Your task to perform on an android device: change keyboard looks Image 0: 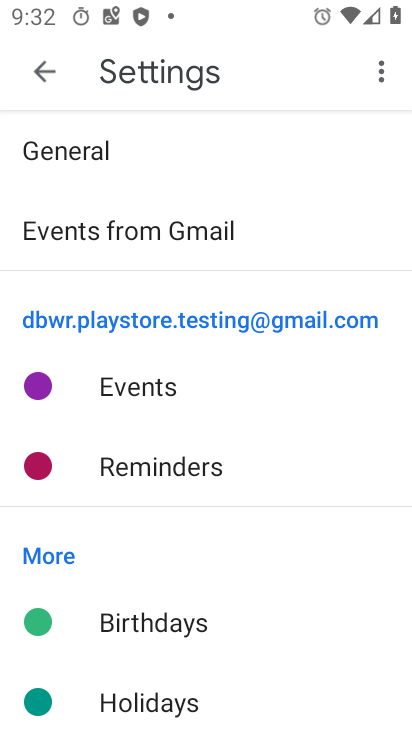
Step 0: press back button
Your task to perform on an android device: change keyboard looks Image 1: 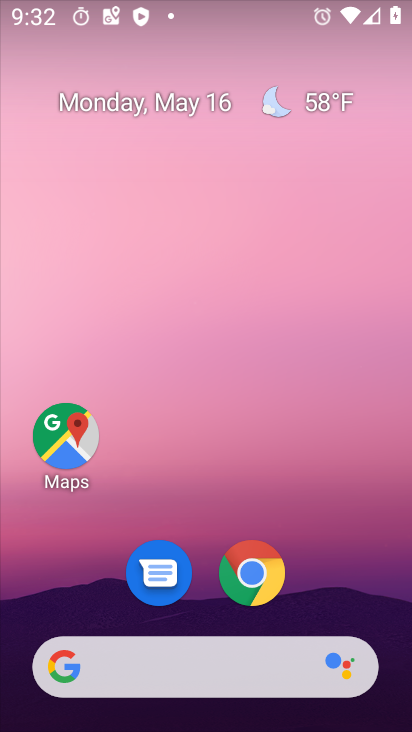
Step 1: drag from (328, 678) to (169, 126)
Your task to perform on an android device: change keyboard looks Image 2: 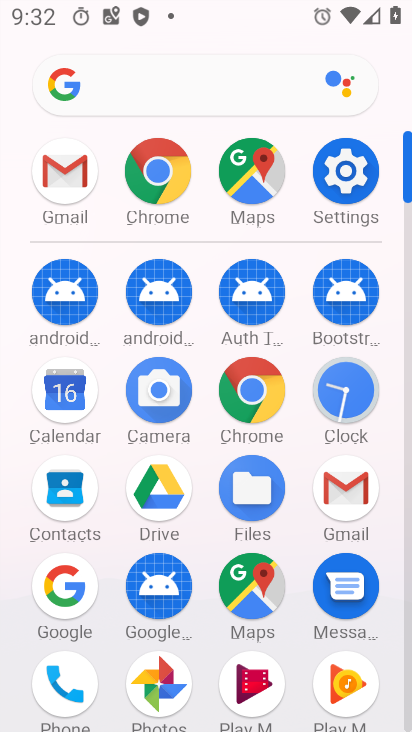
Step 2: click (346, 177)
Your task to perform on an android device: change keyboard looks Image 3: 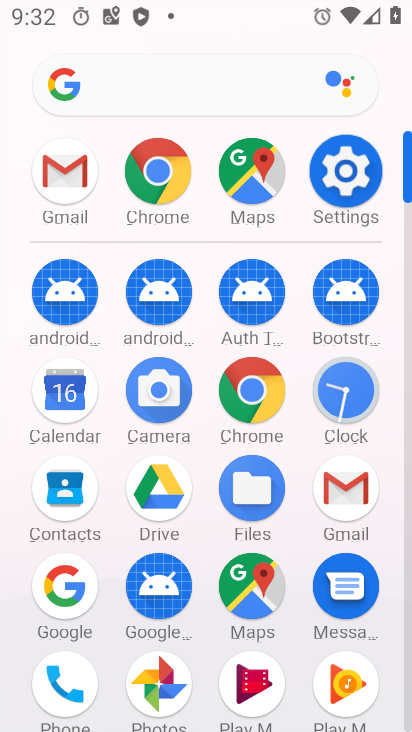
Step 3: click (347, 176)
Your task to perform on an android device: change keyboard looks Image 4: 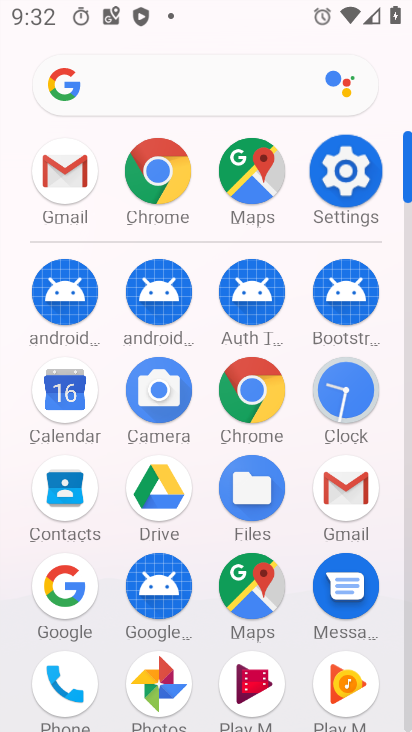
Step 4: click (348, 175)
Your task to perform on an android device: change keyboard looks Image 5: 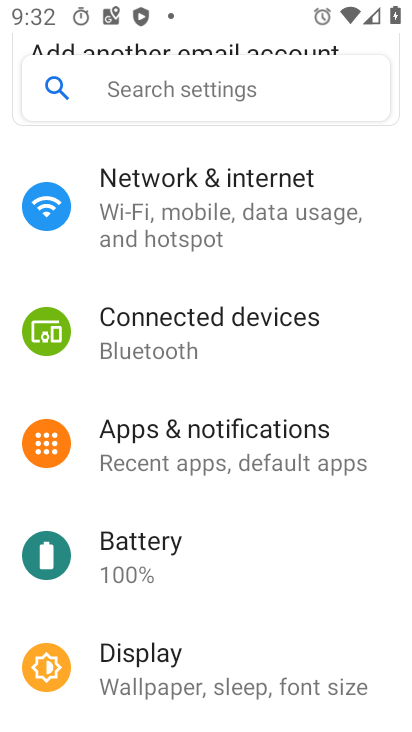
Step 5: drag from (221, 591) to (224, 56)
Your task to perform on an android device: change keyboard looks Image 6: 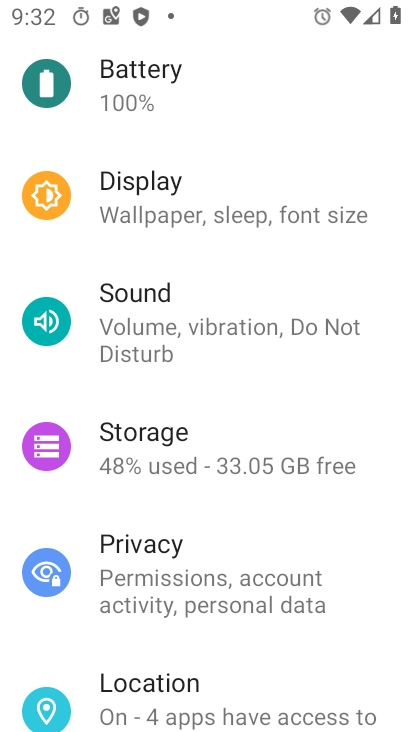
Step 6: drag from (233, 633) to (214, 59)
Your task to perform on an android device: change keyboard looks Image 7: 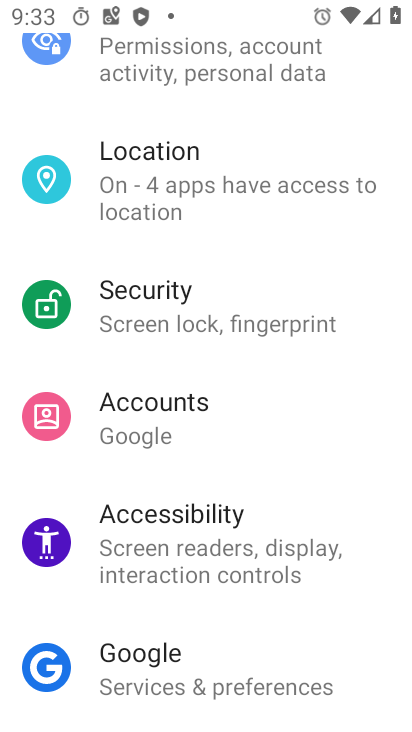
Step 7: drag from (227, 598) to (237, 35)
Your task to perform on an android device: change keyboard looks Image 8: 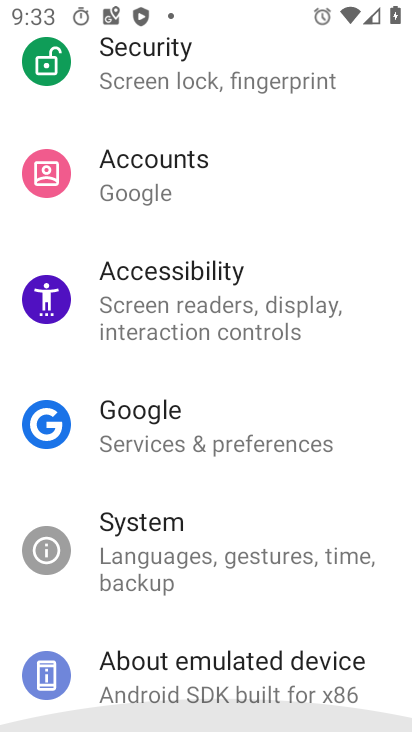
Step 8: drag from (235, 395) to (180, 0)
Your task to perform on an android device: change keyboard looks Image 9: 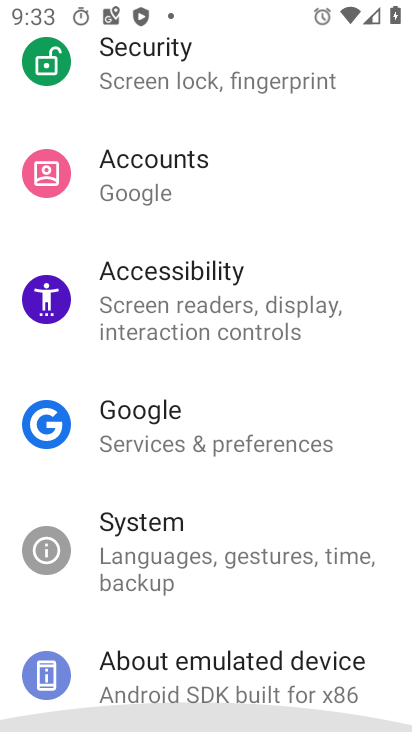
Step 9: drag from (277, 500) to (274, 64)
Your task to perform on an android device: change keyboard looks Image 10: 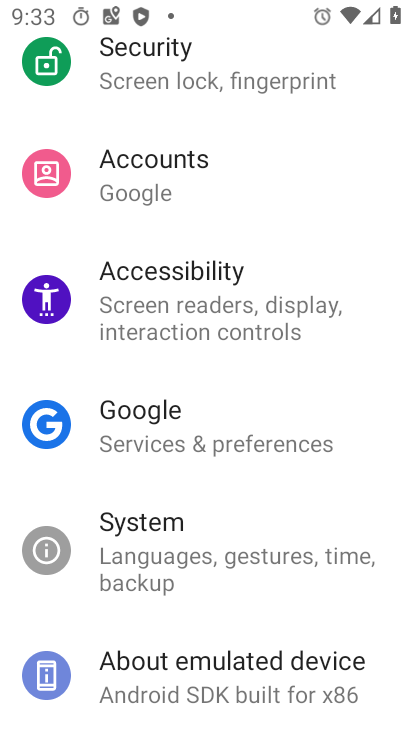
Step 10: click (172, 564)
Your task to perform on an android device: change keyboard looks Image 11: 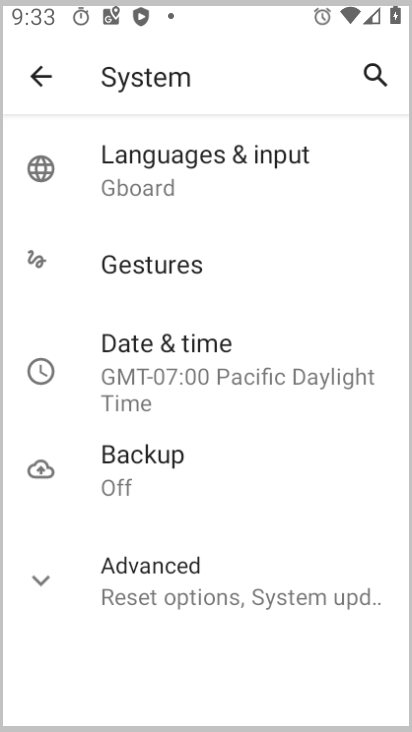
Step 11: click (172, 564)
Your task to perform on an android device: change keyboard looks Image 12: 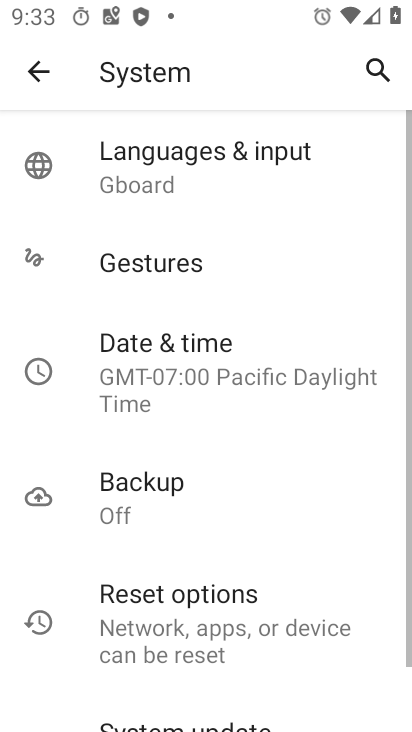
Step 12: click (129, 163)
Your task to perform on an android device: change keyboard looks Image 13: 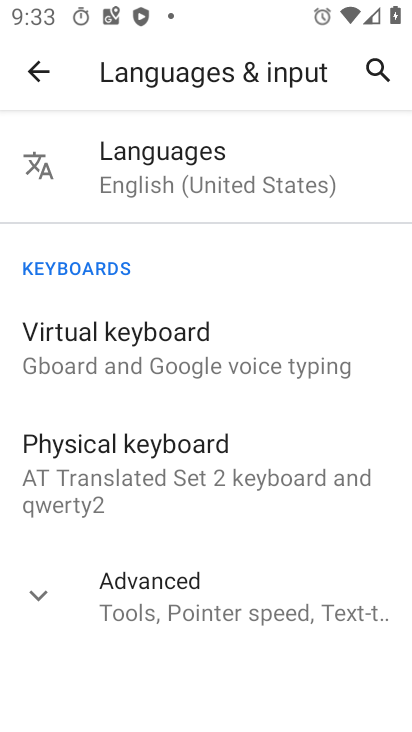
Step 13: click (97, 361)
Your task to perform on an android device: change keyboard looks Image 14: 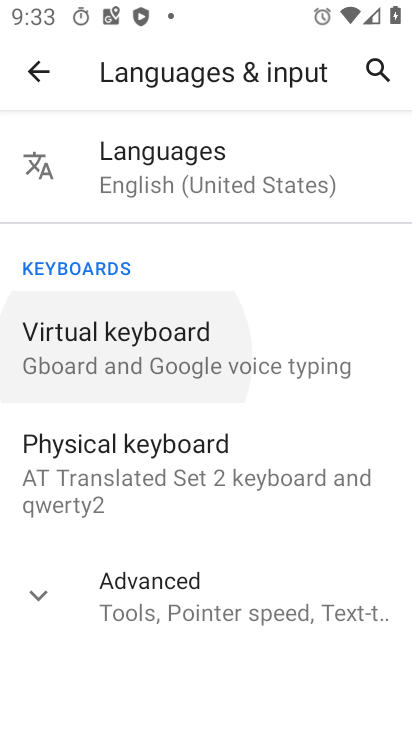
Step 14: click (95, 359)
Your task to perform on an android device: change keyboard looks Image 15: 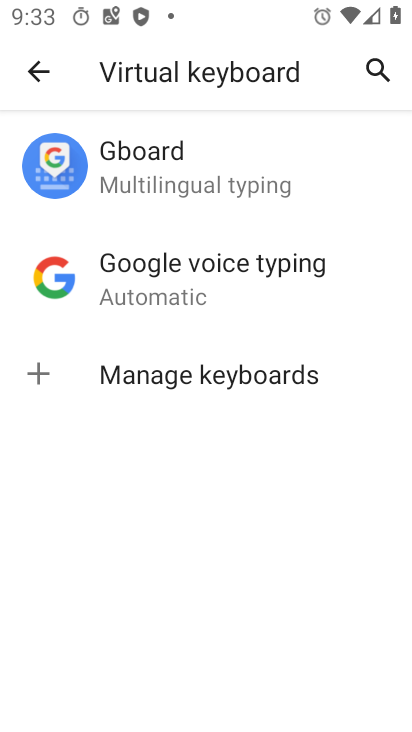
Step 15: click (124, 149)
Your task to perform on an android device: change keyboard looks Image 16: 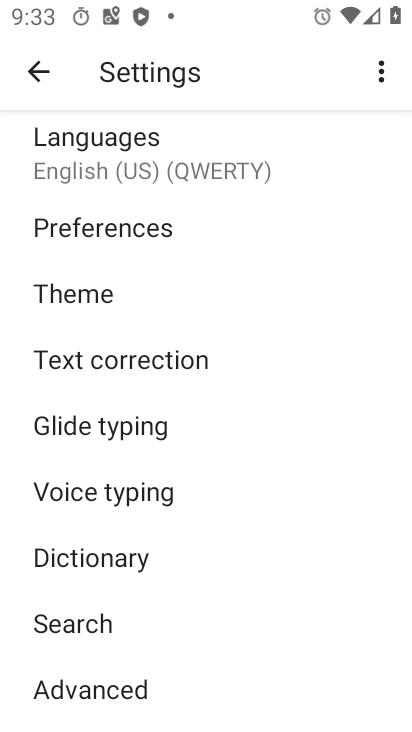
Step 16: click (56, 299)
Your task to perform on an android device: change keyboard looks Image 17: 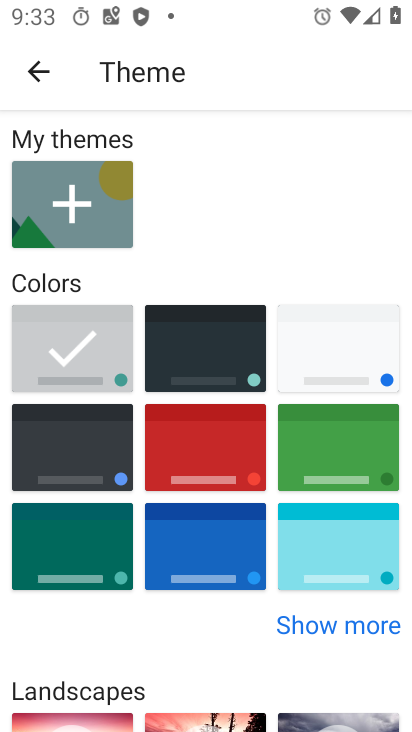
Step 17: click (49, 427)
Your task to perform on an android device: change keyboard looks Image 18: 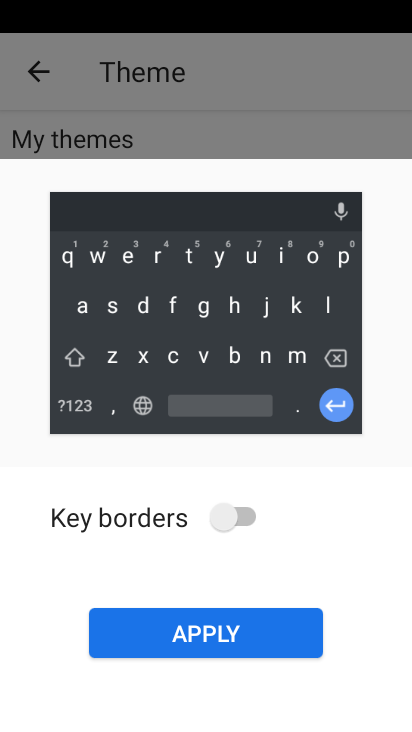
Step 18: click (210, 637)
Your task to perform on an android device: change keyboard looks Image 19: 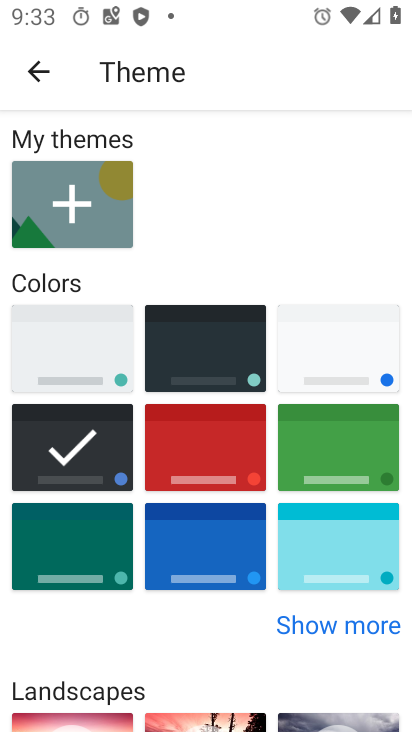
Step 19: click (220, 610)
Your task to perform on an android device: change keyboard looks Image 20: 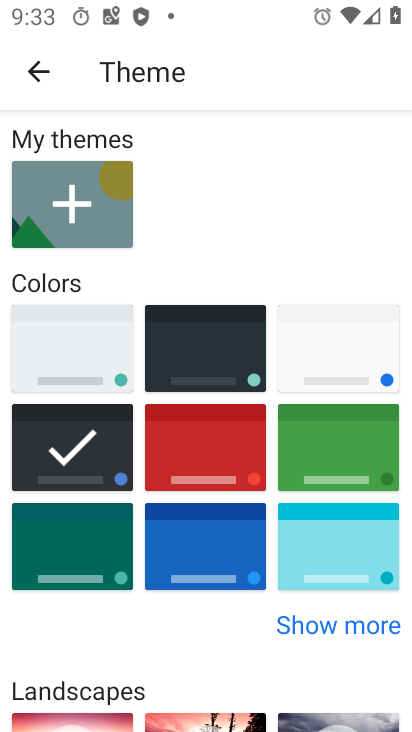
Step 20: task complete